Your task to perform on an android device: Open Reddit.com Image 0: 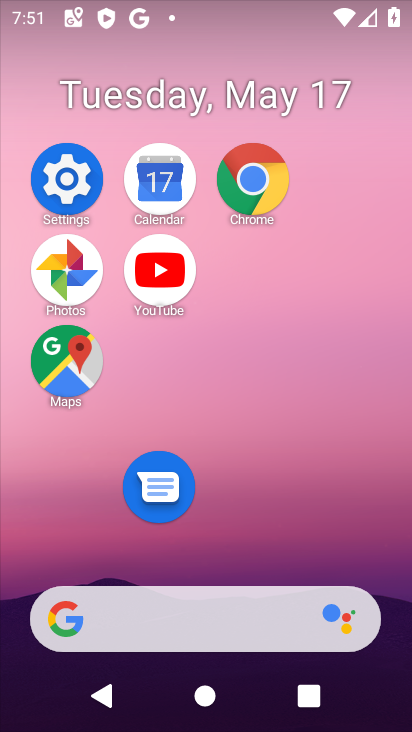
Step 0: click (242, 185)
Your task to perform on an android device: Open Reddit.com Image 1: 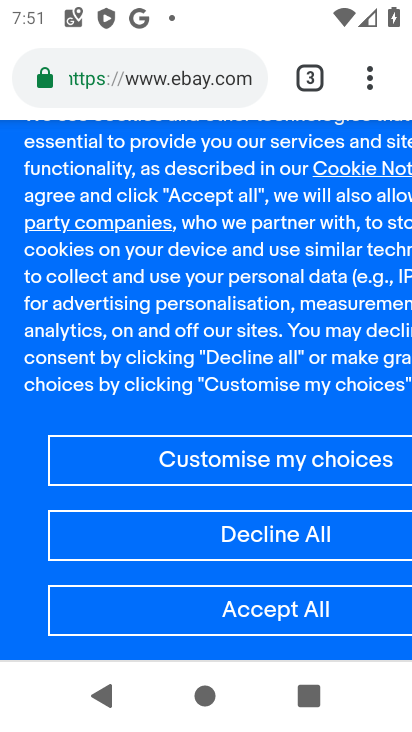
Step 1: click (325, 79)
Your task to perform on an android device: Open Reddit.com Image 2: 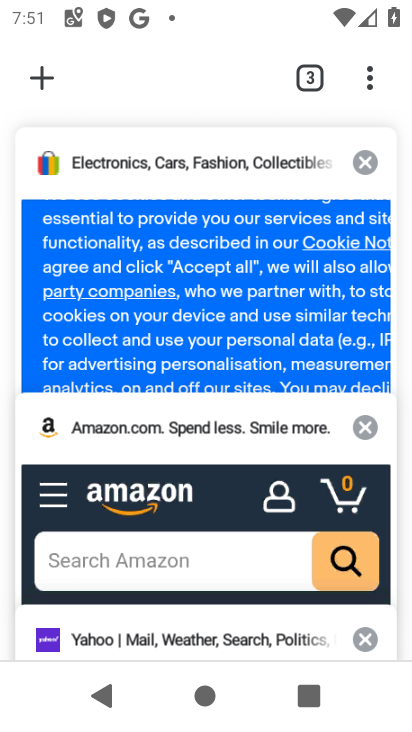
Step 2: drag from (235, 238) to (165, 514)
Your task to perform on an android device: Open Reddit.com Image 3: 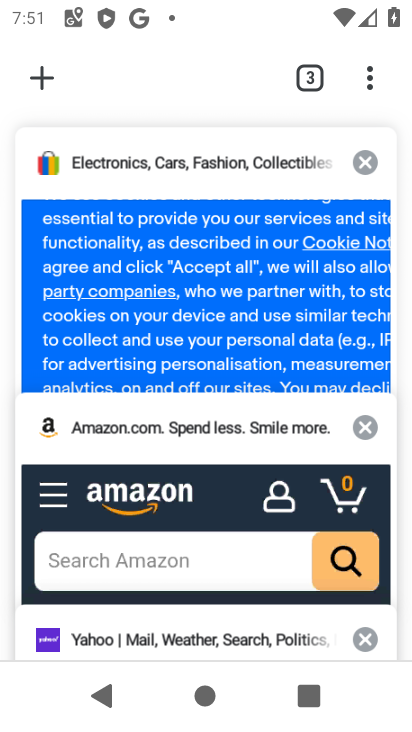
Step 3: click (64, 85)
Your task to perform on an android device: Open Reddit.com Image 4: 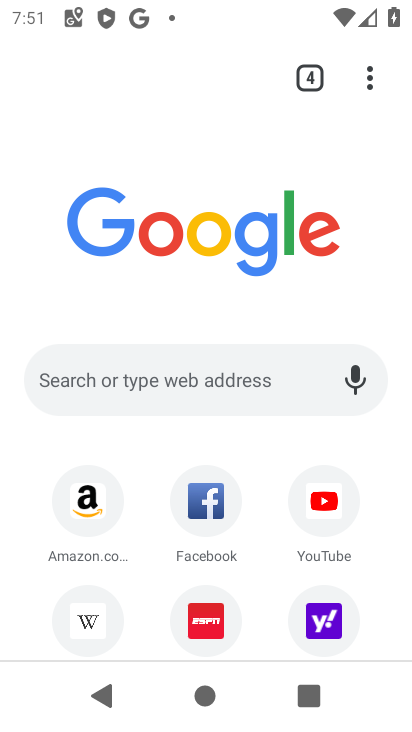
Step 4: click (222, 375)
Your task to perform on an android device: Open Reddit.com Image 5: 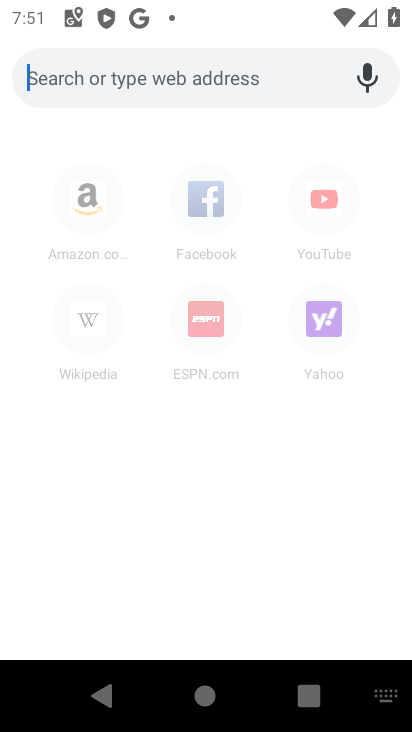
Step 5: type "reddit"
Your task to perform on an android device: Open Reddit.com Image 6: 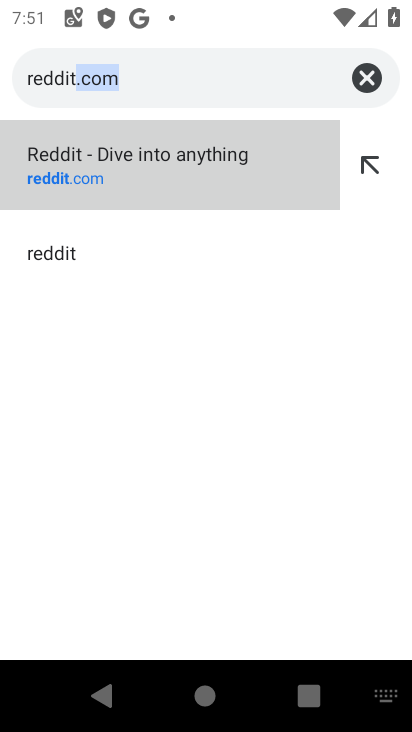
Step 6: click (93, 182)
Your task to perform on an android device: Open Reddit.com Image 7: 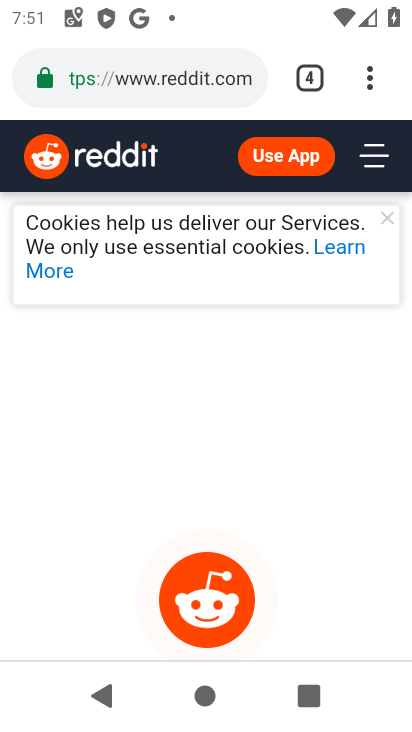
Step 7: task complete